Your task to perform on an android device: all mails in gmail Image 0: 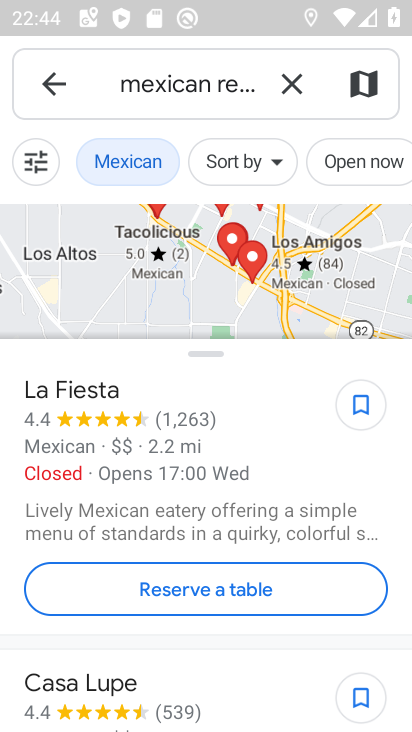
Step 0: press home button
Your task to perform on an android device: all mails in gmail Image 1: 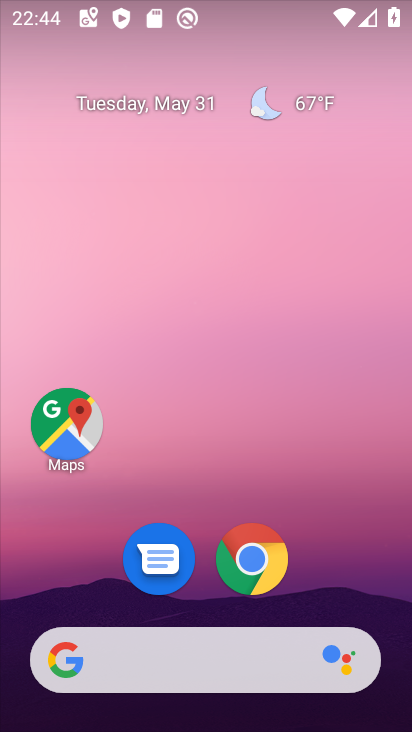
Step 1: drag from (323, 581) to (291, 96)
Your task to perform on an android device: all mails in gmail Image 2: 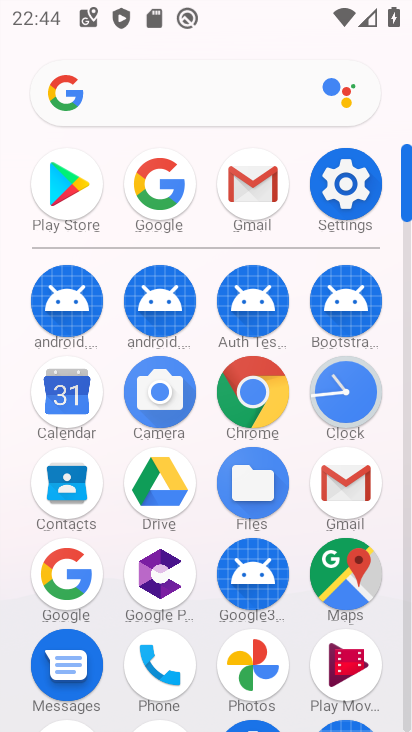
Step 2: click (253, 186)
Your task to perform on an android device: all mails in gmail Image 3: 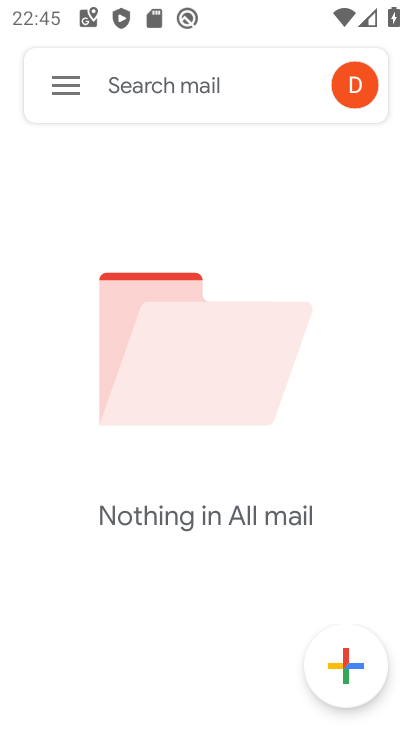
Step 3: task complete